Your task to perform on an android device: install app "Pluto TV - Live TV and Movies" Image 0: 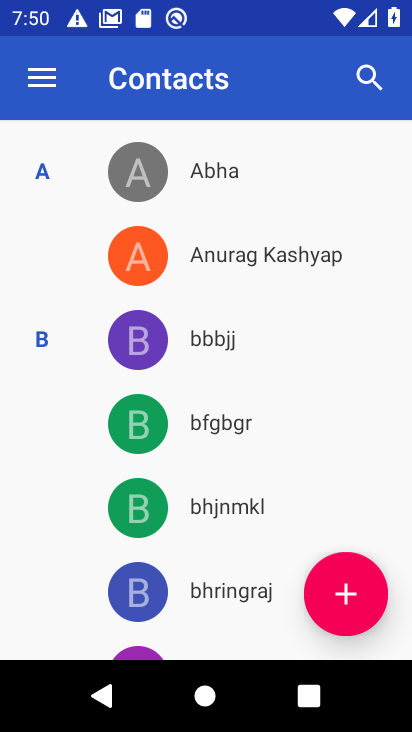
Step 0: press home button
Your task to perform on an android device: install app "Pluto TV - Live TV and Movies" Image 1: 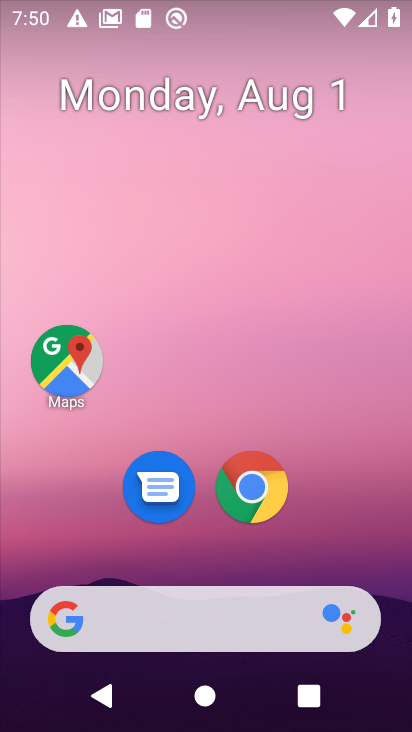
Step 1: drag from (383, 560) to (359, 69)
Your task to perform on an android device: install app "Pluto TV - Live TV and Movies" Image 2: 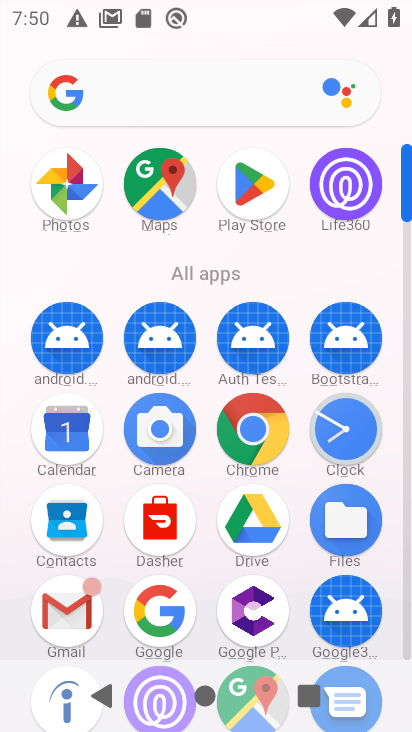
Step 2: click (251, 193)
Your task to perform on an android device: install app "Pluto TV - Live TV and Movies" Image 3: 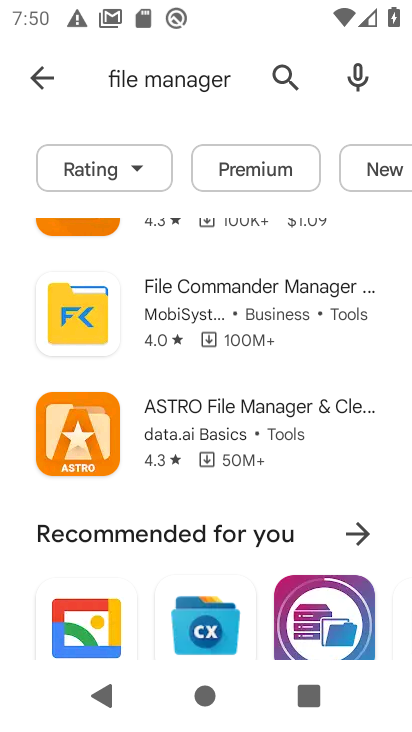
Step 3: click (288, 76)
Your task to perform on an android device: install app "Pluto TV - Live TV and Movies" Image 4: 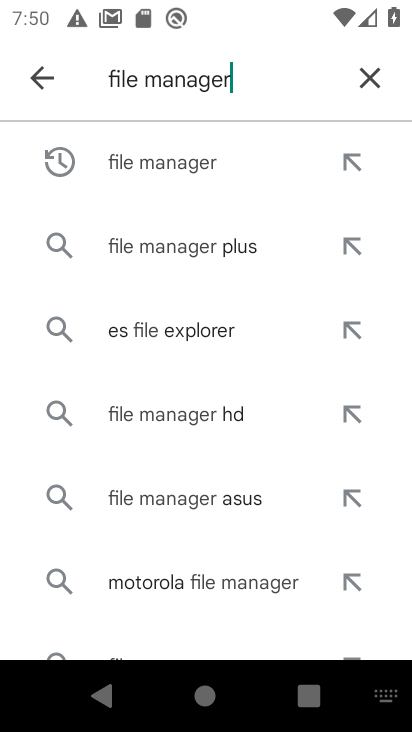
Step 4: click (361, 71)
Your task to perform on an android device: install app "Pluto TV - Live TV and Movies" Image 5: 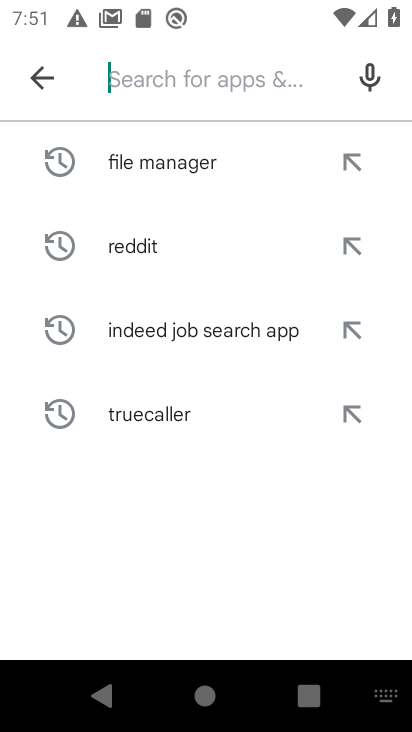
Step 5: type "Pluto TV - Live TV and Movies"
Your task to perform on an android device: install app "Pluto TV - Live TV and Movies" Image 6: 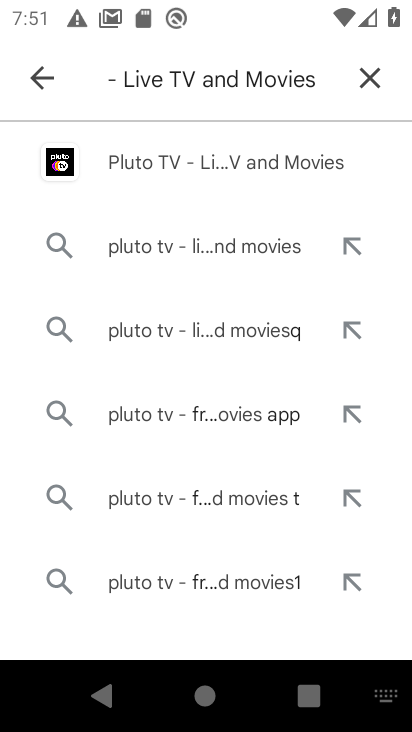
Step 6: click (264, 175)
Your task to perform on an android device: install app "Pluto TV - Live TV and Movies" Image 7: 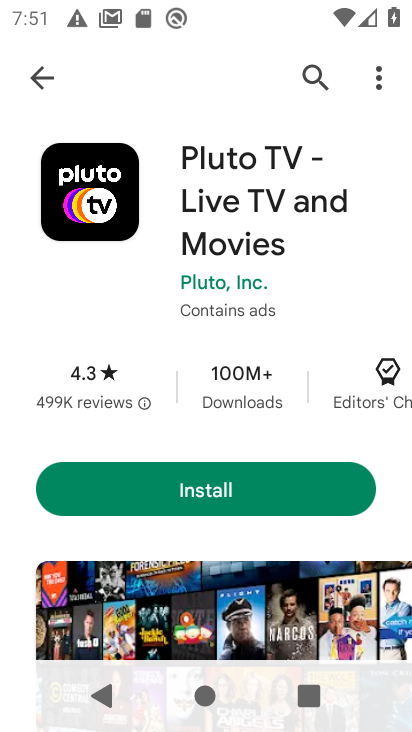
Step 7: click (196, 486)
Your task to perform on an android device: install app "Pluto TV - Live TV and Movies" Image 8: 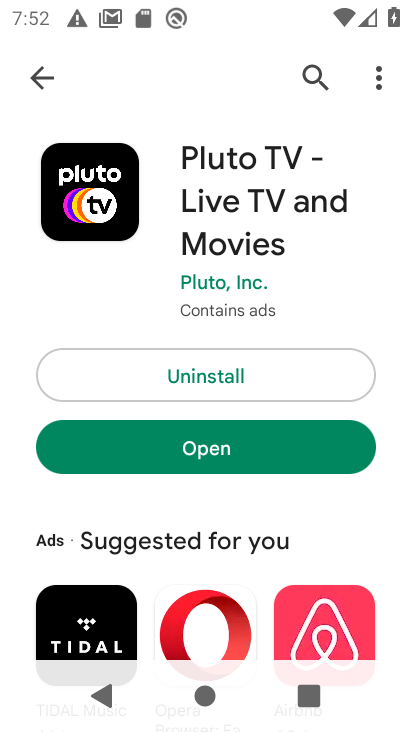
Step 8: task complete